Your task to perform on an android device: change the clock style Image 0: 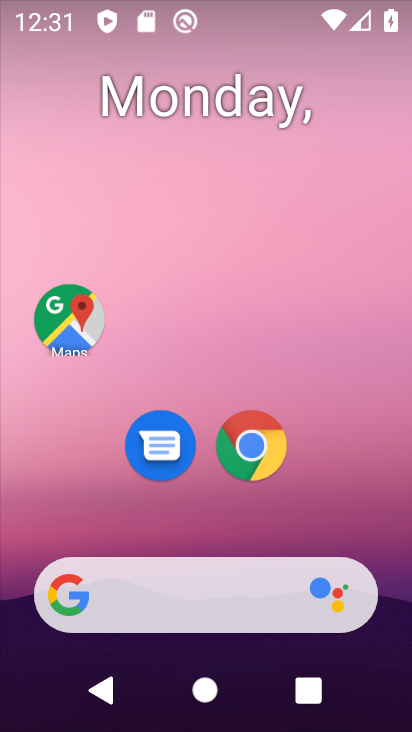
Step 0: drag from (368, 635) to (160, 121)
Your task to perform on an android device: change the clock style Image 1: 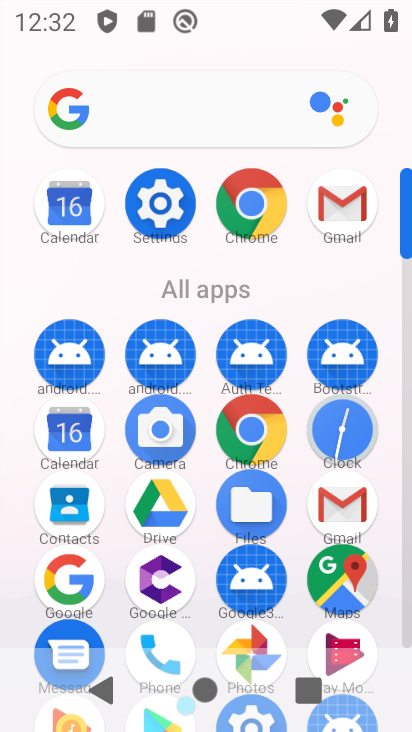
Step 1: click (329, 427)
Your task to perform on an android device: change the clock style Image 2: 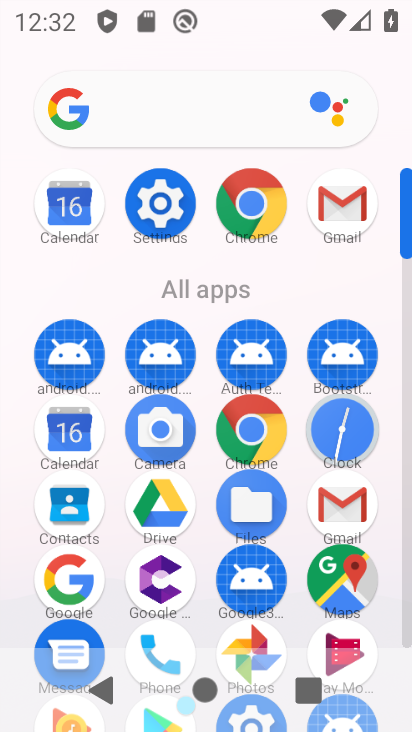
Step 2: click (329, 427)
Your task to perform on an android device: change the clock style Image 3: 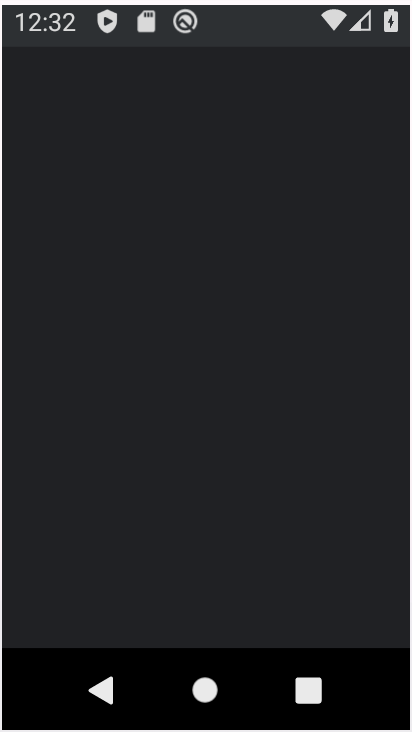
Step 3: click (337, 426)
Your task to perform on an android device: change the clock style Image 4: 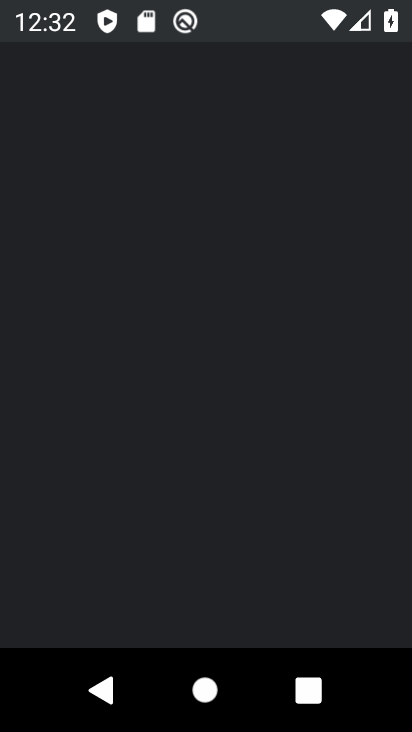
Step 4: click (337, 426)
Your task to perform on an android device: change the clock style Image 5: 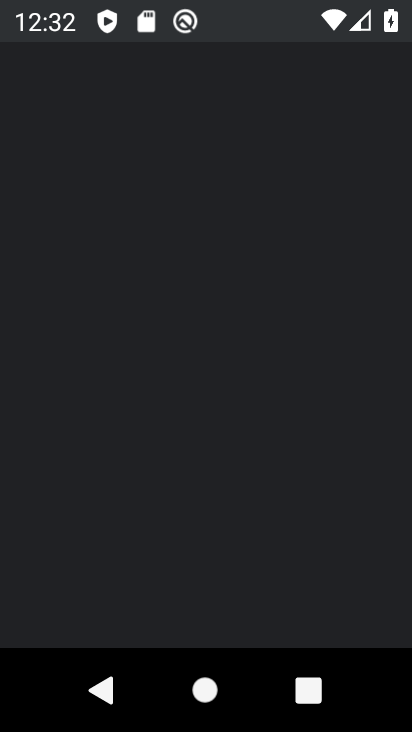
Step 5: click (337, 425)
Your task to perform on an android device: change the clock style Image 6: 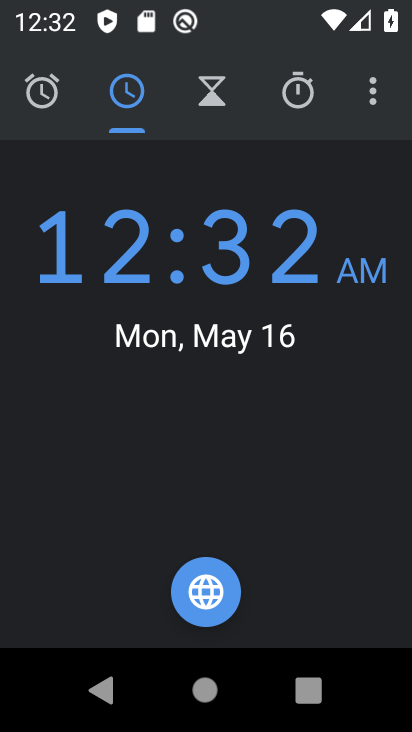
Step 6: click (374, 97)
Your task to perform on an android device: change the clock style Image 7: 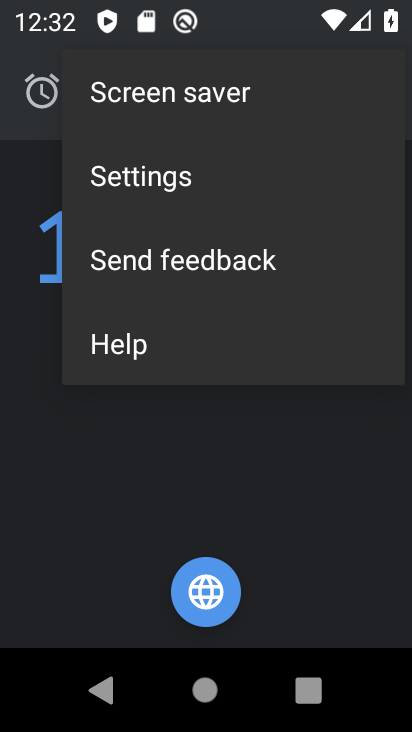
Step 7: click (139, 179)
Your task to perform on an android device: change the clock style Image 8: 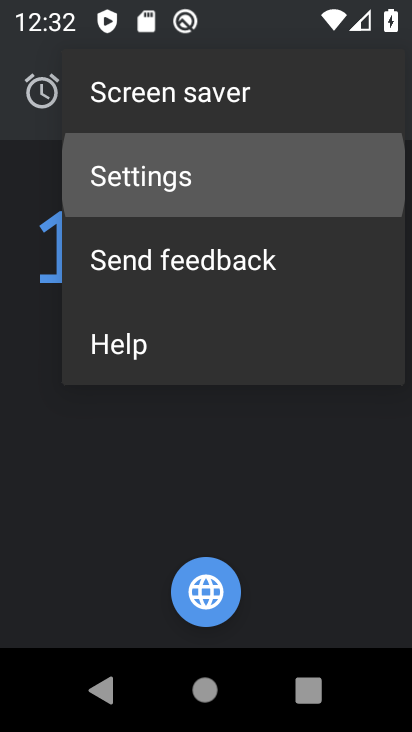
Step 8: click (140, 178)
Your task to perform on an android device: change the clock style Image 9: 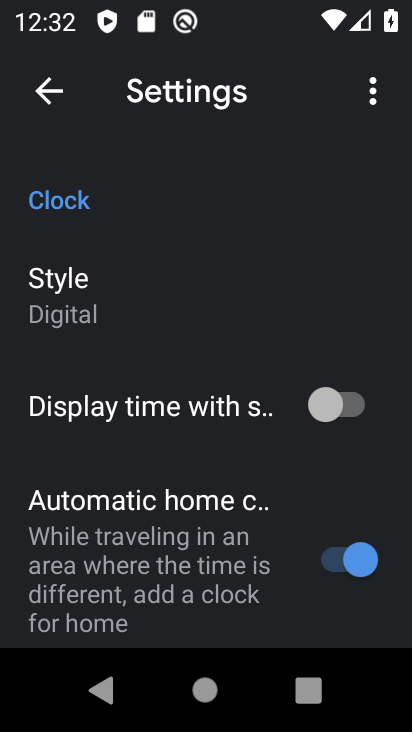
Step 9: click (138, 282)
Your task to perform on an android device: change the clock style Image 10: 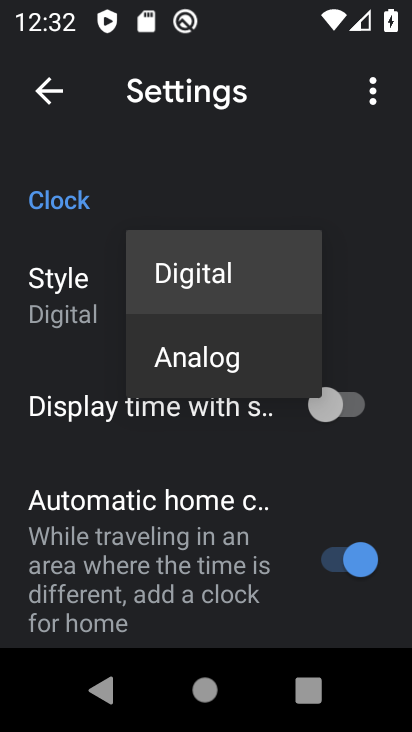
Step 10: click (190, 357)
Your task to perform on an android device: change the clock style Image 11: 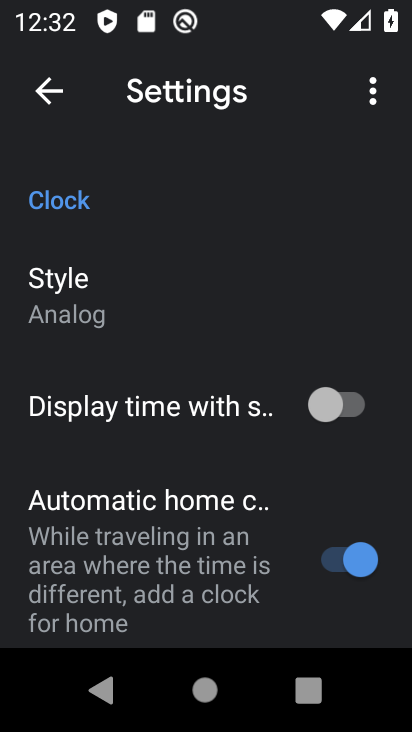
Step 11: task complete